Your task to perform on an android device: turn off airplane mode Image 0: 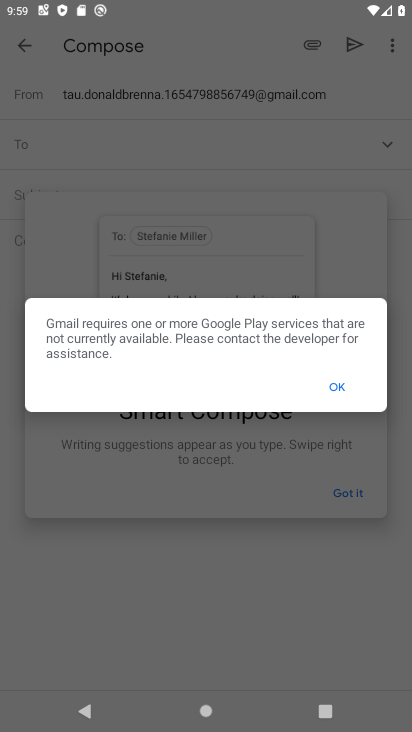
Step 0: press home button
Your task to perform on an android device: turn off airplane mode Image 1: 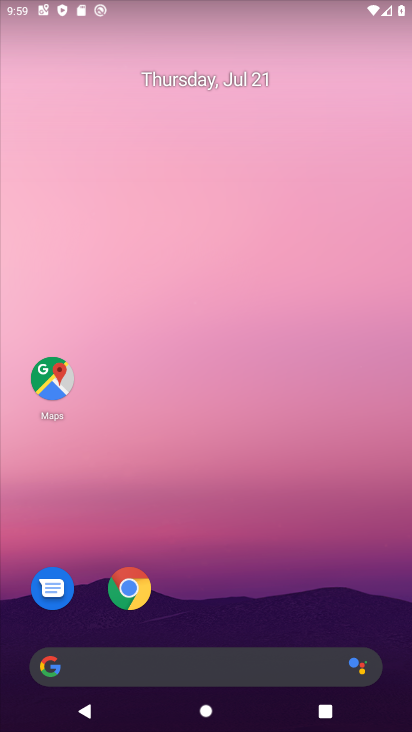
Step 1: drag from (383, 666) to (309, 93)
Your task to perform on an android device: turn off airplane mode Image 2: 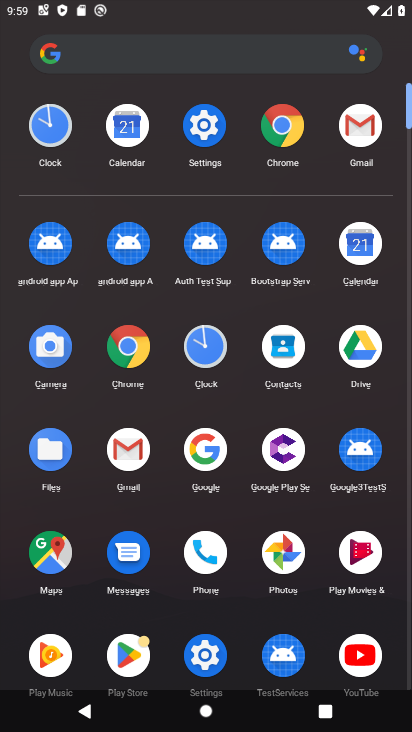
Step 2: click (201, 124)
Your task to perform on an android device: turn off airplane mode Image 3: 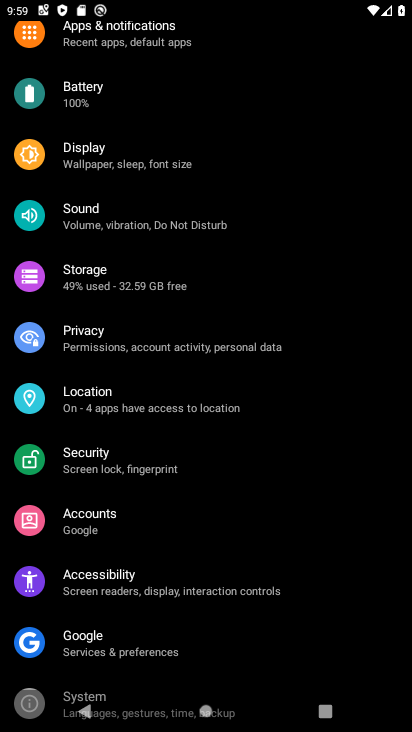
Step 3: drag from (272, 99) to (310, 528)
Your task to perform on an android device: turn off airplane mode Image 4: 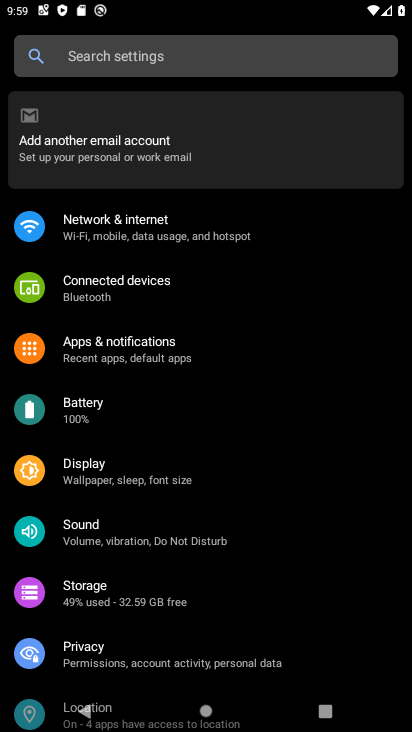
Step 4: click (178, 225)
Your task to perform on an android device: turn off airplane mode Image 5: 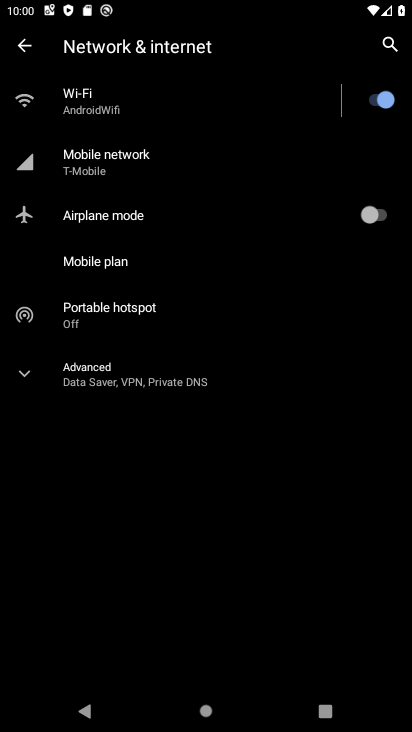
Step 5: task complete